Your task to perform on an android device: Go to eBay Image 0: 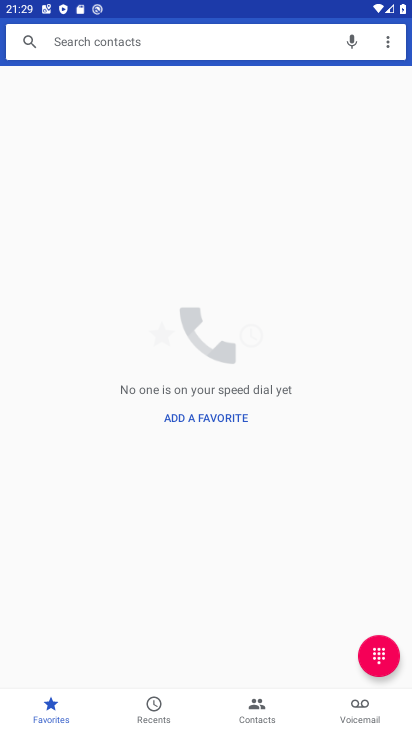
Step 0: press home button
Your task to perform on an android device: Go to eBay Image 1: 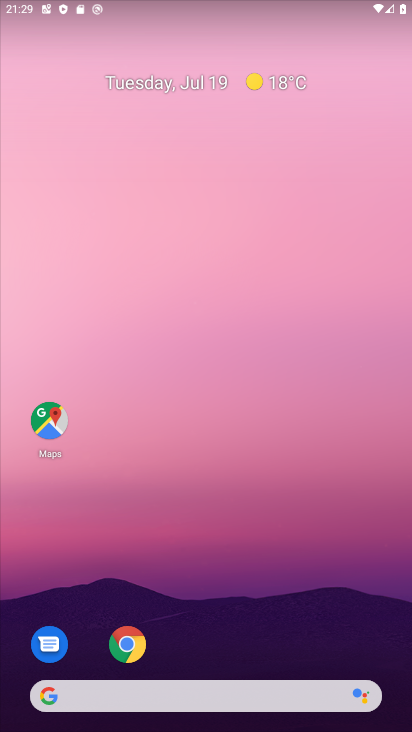
Step 1: click (127, 644)
Your task to perform on an android device: Go to eBay Image 2: 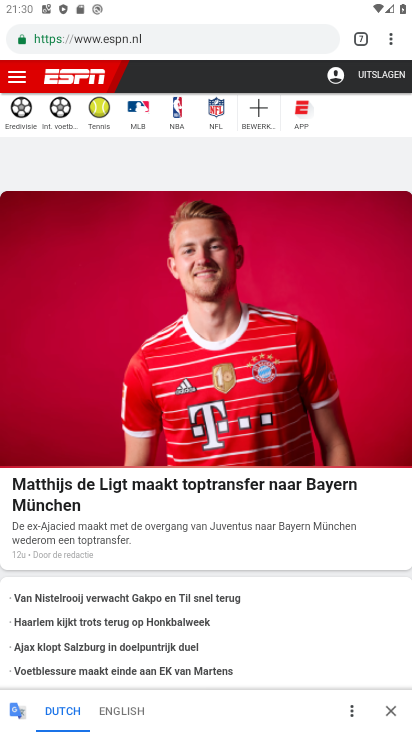
Step 2: click (391, 42)
Your task to perform on an android device: Go to eBay Image 3: 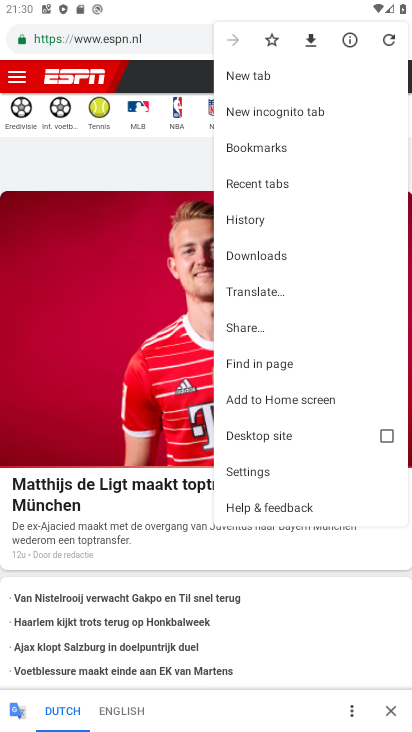
Step 3: click (257, 78)
Your task to perform on an android device: Go to eBay Image 4: 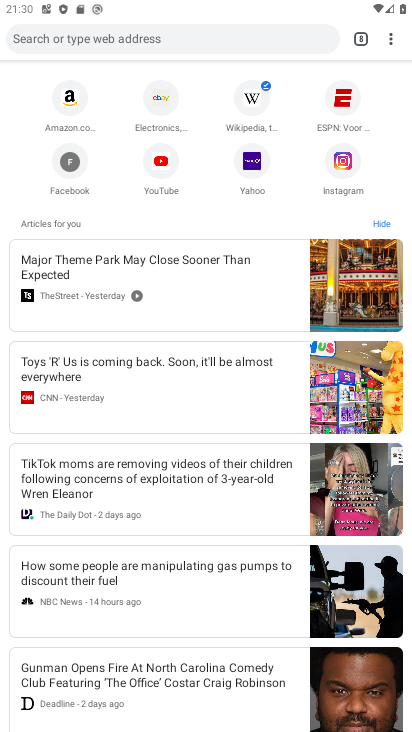
Step 4: click (194, 45)
Your task to perform on an android device: Go to eBay Image 5: 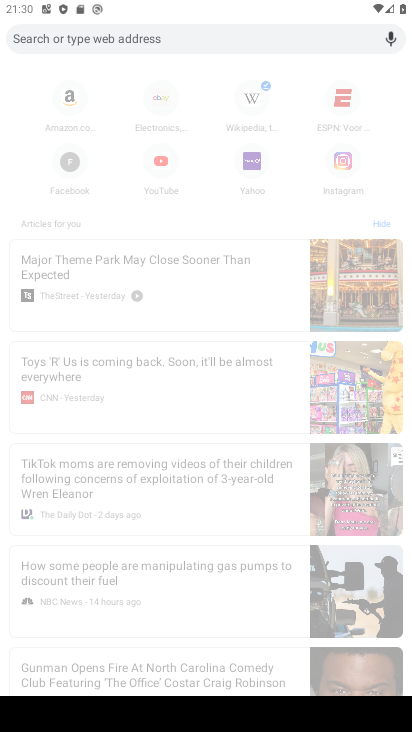
Step 5: type "eBay"
Your task to perform on an android device: Go to eBay Image 6: 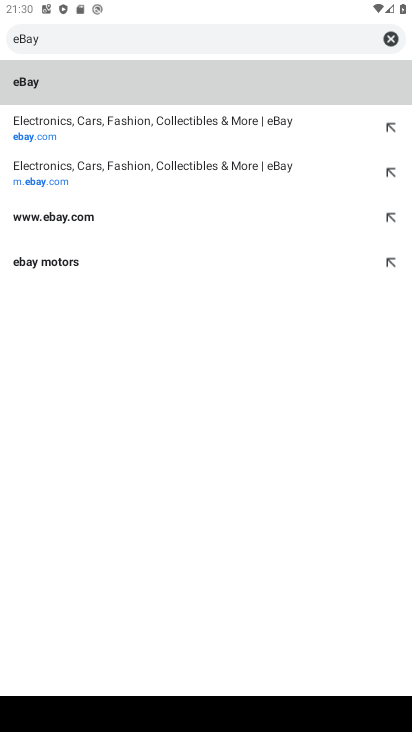
Step 6: click (25, 77)
Your task to perform on an android device: Go to eBay Image 7: 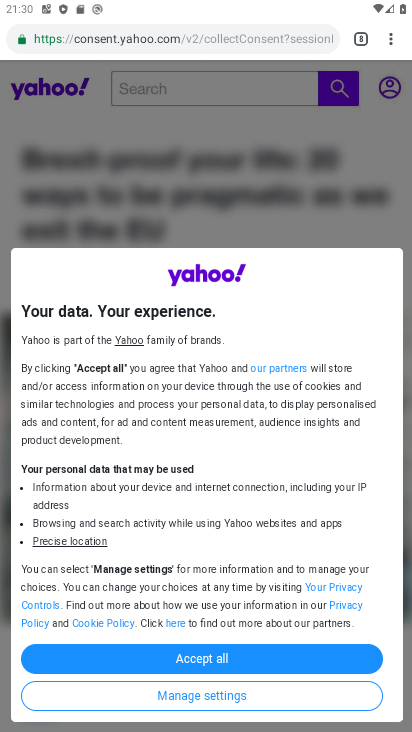
Step 7: click (214, 658)
Your task to perform on an android device: Go to eBay Image 8: 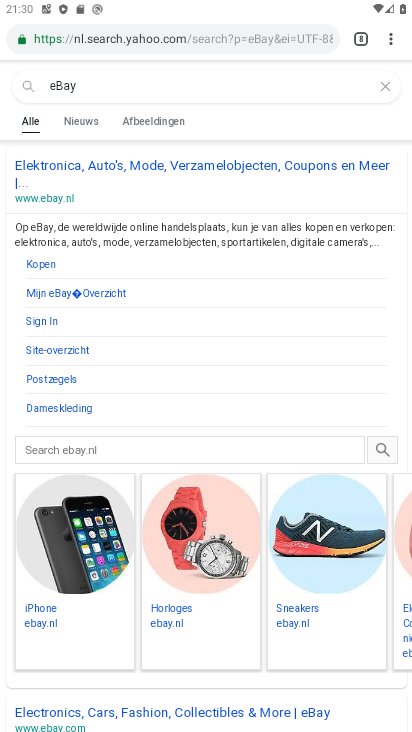
Step 8: click (180, 162)
Your task to perform on an android device: Go to eBay Image 9: 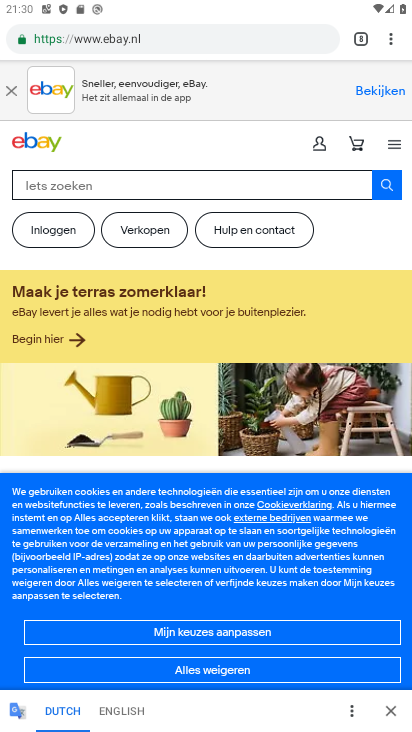
Step 9: task complete